Your task to perform on an android device: Play the last video I watched on Youtube Image 0: 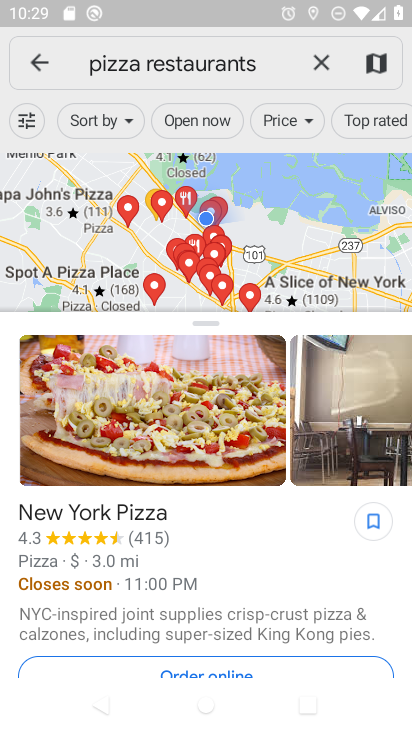
Step 0: press home button
Your task to perform on an android device: Play the last video I watched on Youtube Image 1: 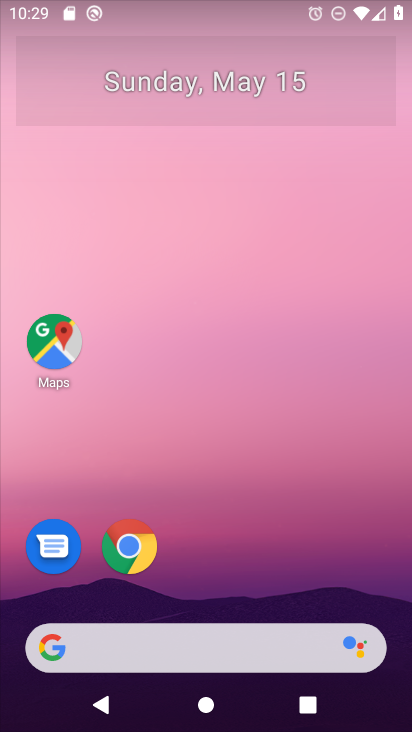
Step 1: drag from (242, 577) to (311, 145)
Your task to perform on an android device: Play the last video I watched on Youtube Image 2: 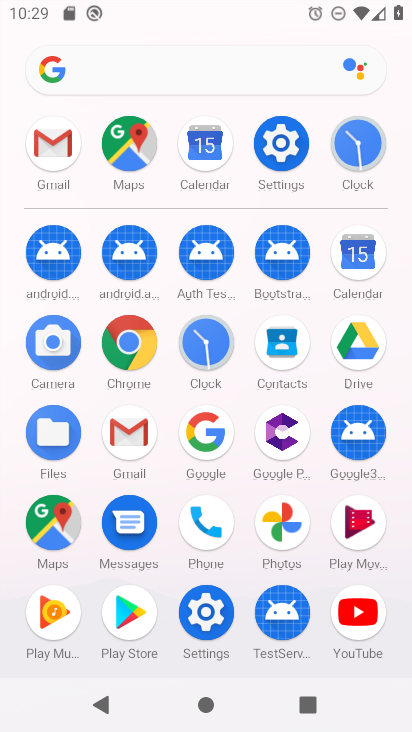
Step 2: click (357, 598)
Your task to perform on an android device: Play the last video I watched on Youtube Image 3: 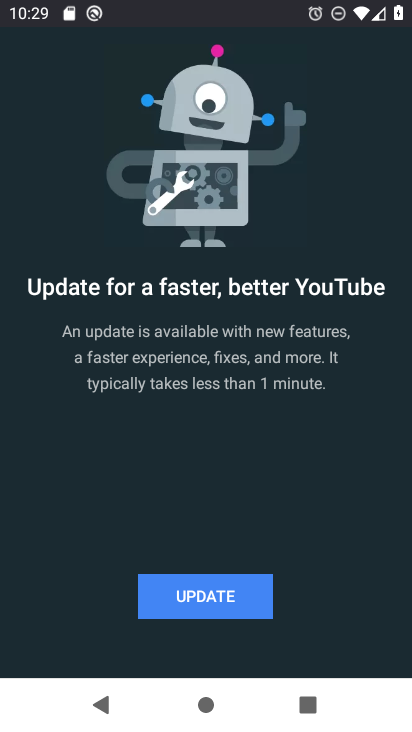
Step 3: click (225, 601)
Your task to perform on an android device: Play the last video I watched on Youtube Image 4: 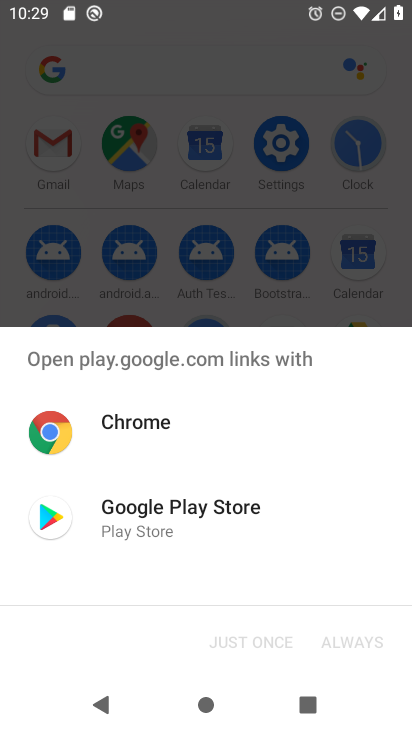
Step 4: click (168, 511)
Your task to perform on an android device: Play the last video I watched on Youtube Image 5: 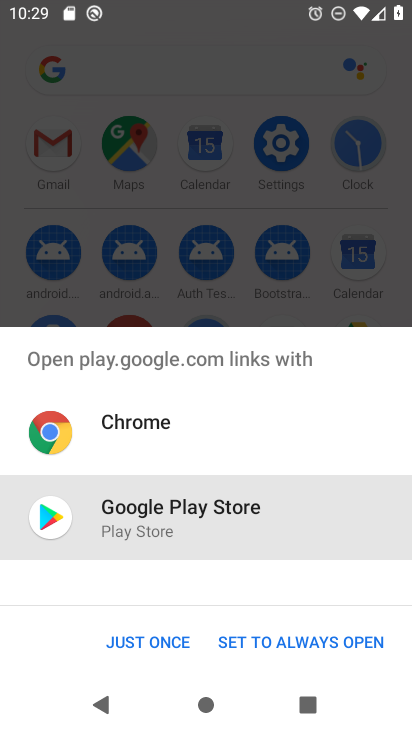
Step 5: click (153, 634)
Your task to perform on an android device: Play the last video I watched on Youtube Image 6: 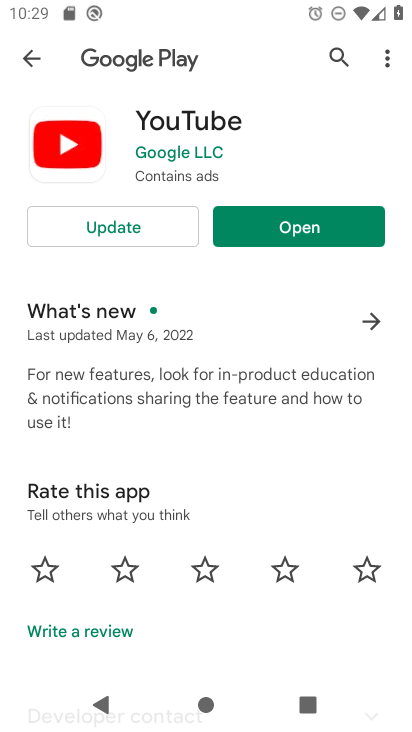
Step 6: click (149, 220)
Your task to perform on an android device: Play the last video I watched on Youtube Image 7: 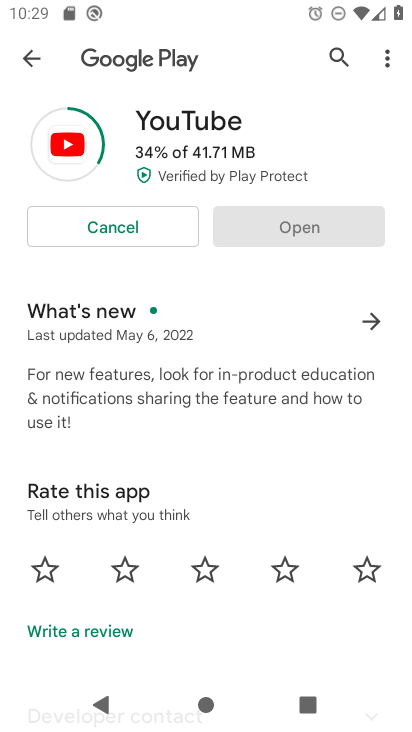
Step 7: task complete